Your task to perform on an android device: What is the recent news? Image 0: 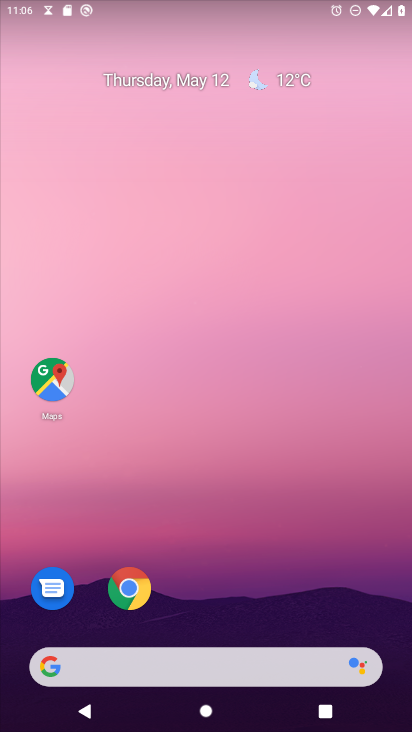
Step 0: drag from (273, 598) to (213, 83)
Your task to perform on an android device: What is the recent news? Image 1: 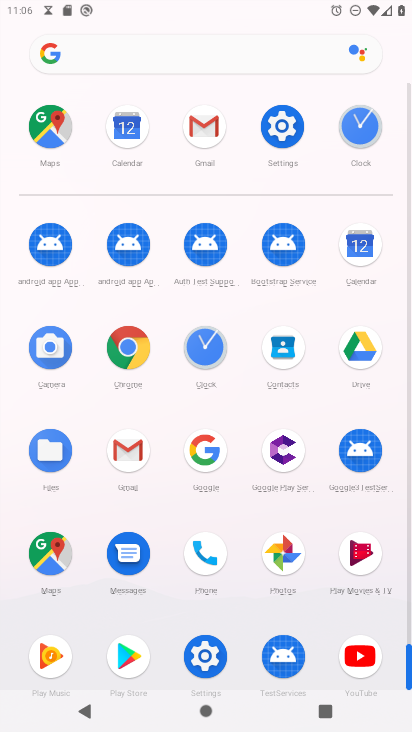
Step 1: click (200, 448)
Your task to perform on an android device: What is the recent news? Image 2: 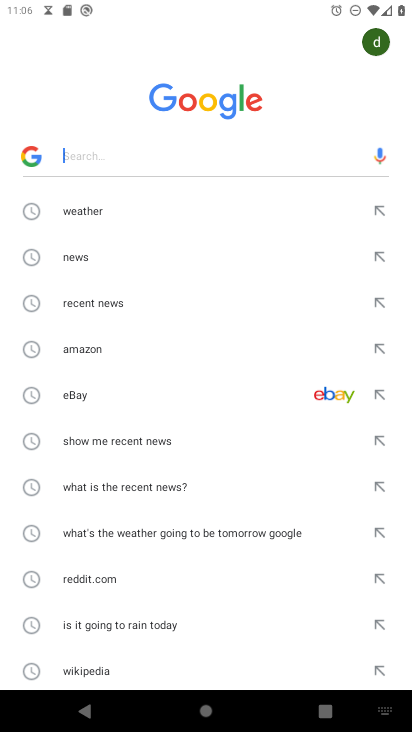
Step 2: click (114, 301)
Your task to perform on an android device: What is the recent news? Image 3: 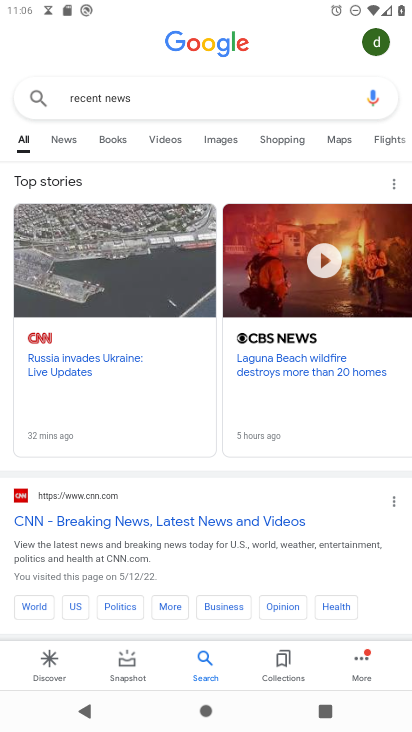
Step 3: task complete